Your task to perform on an android device: Open Google Chrome Image 0: 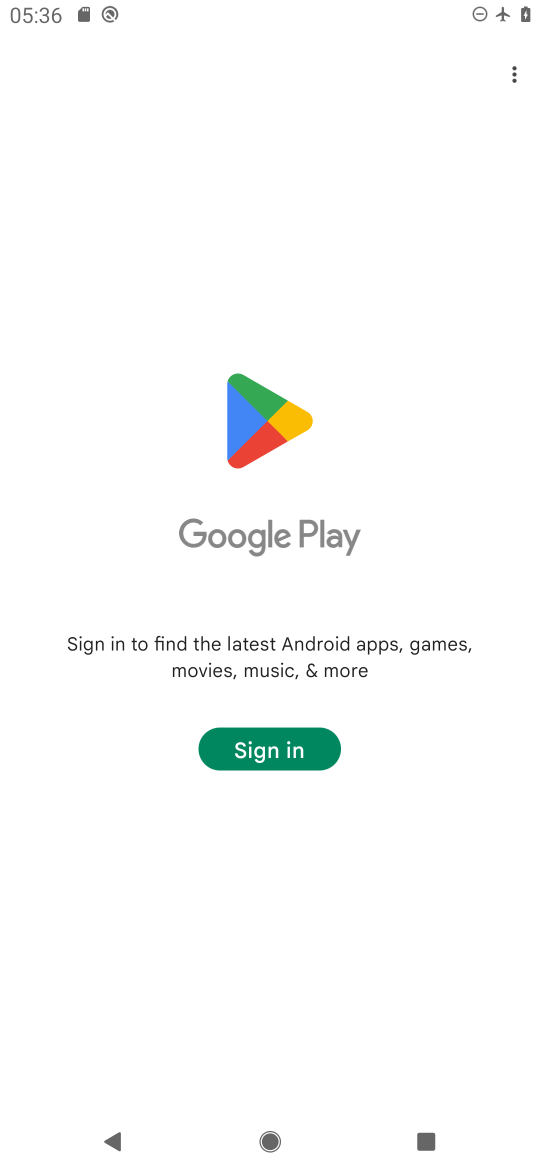
Step 0: press home button
Your task to perform on an android device: Open Google Chrome Image 1: 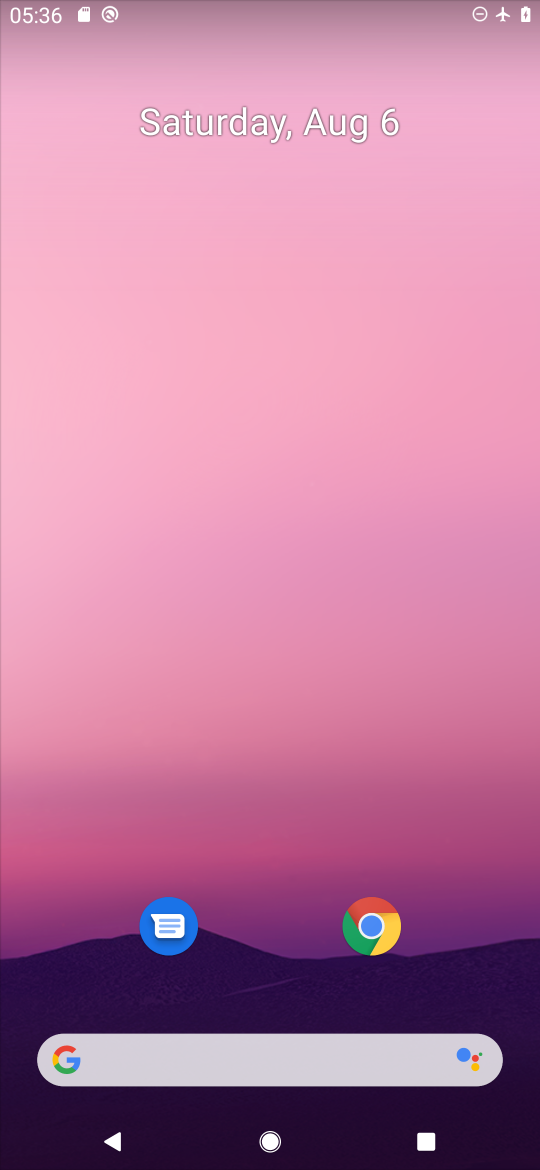
Step 1: click (352, 928)
Your task to perform on an android device: Open Google Chrome Image 2: 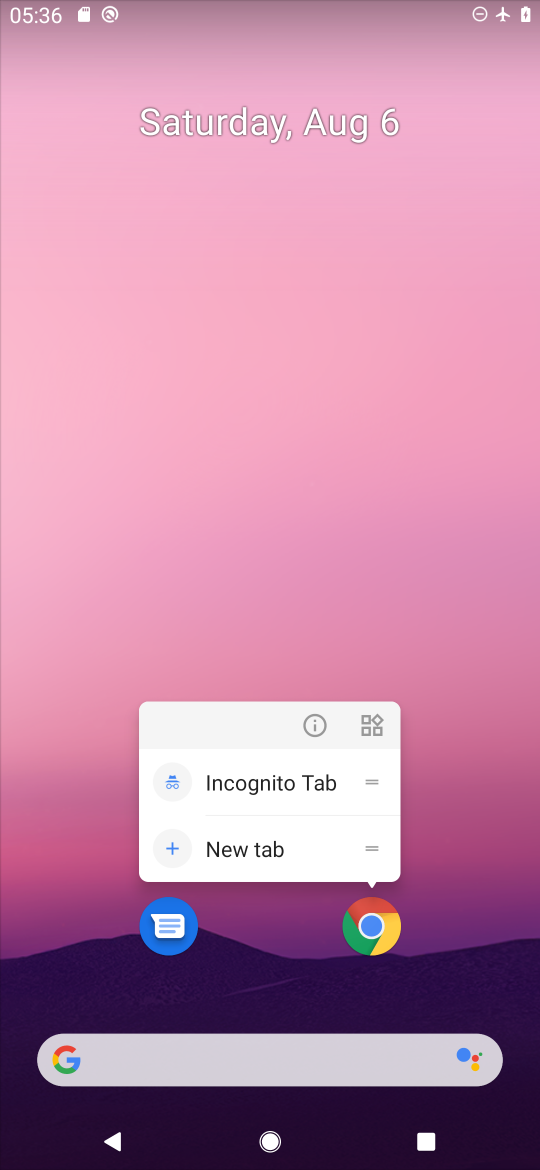
Step 2: click (380, 962)
Your task to perform on an android device: Open Google Chrome Image 3: 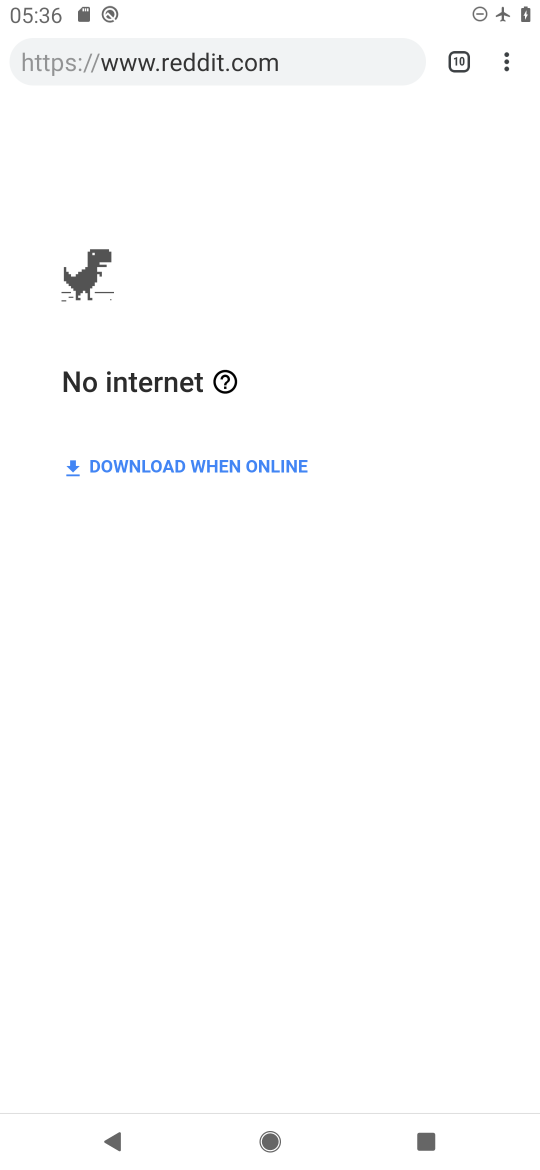
Step 3: task complete